Your task to perform on an android device: turn pop-ups off in chrome Image 0: 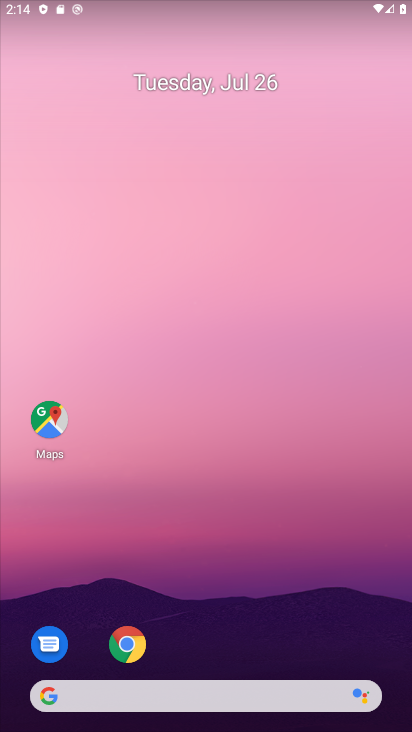
Step 0: click (120, 642)
Your task to perform on an android device: turn pop-ups off in chrome Image 1: 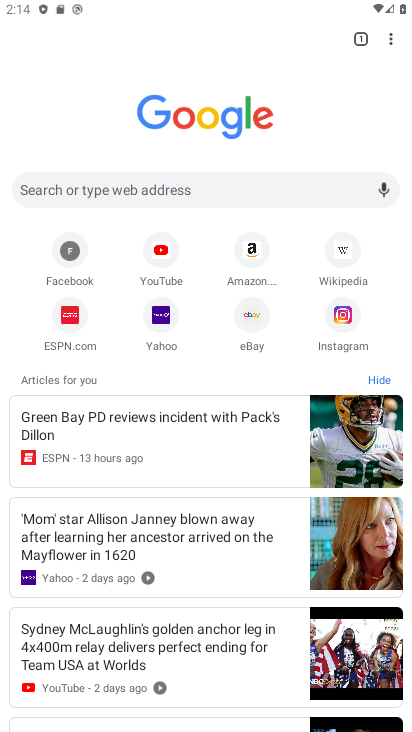
Step 1: drag from (386, 38) to (247, 325)
Your task to perform on an android device: turn pop-ups off in chrome Image 2: 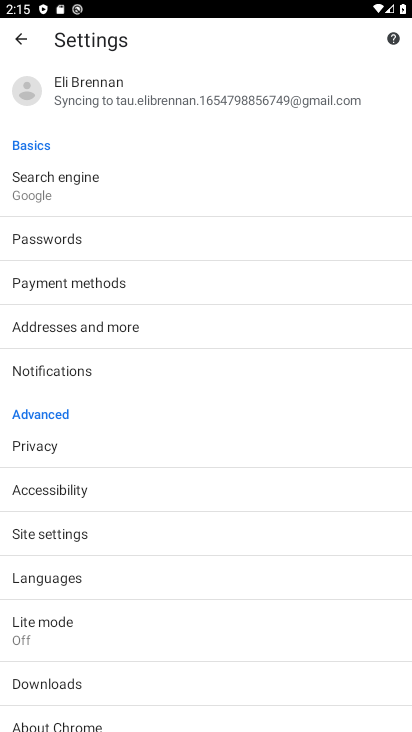
Step 2: click (67, 538)
Your task to perform on an android device: turn pop-ups off in chrome Image 3: 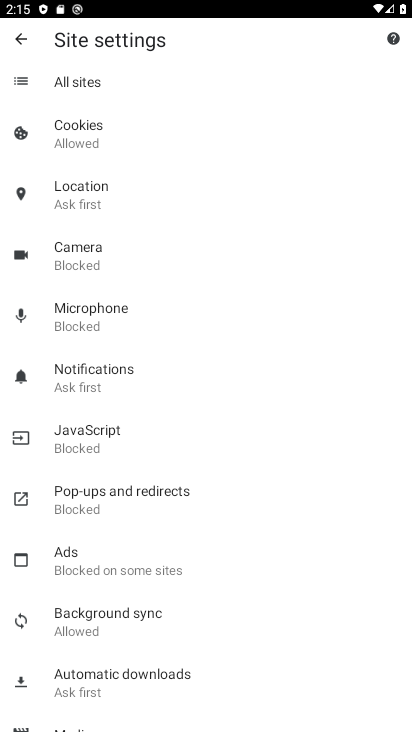
Step 3: click (110, 495)
Your task to perform on an android device: turn pop-ups off in chrome Image 4: 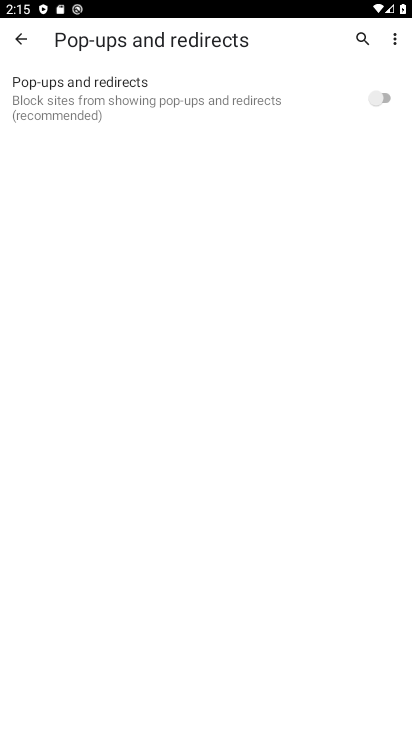
Step 4: task complete